Your task to perform on an android device: open app "Flipkart Online Shopping App" (install if not already installed) Image 0: 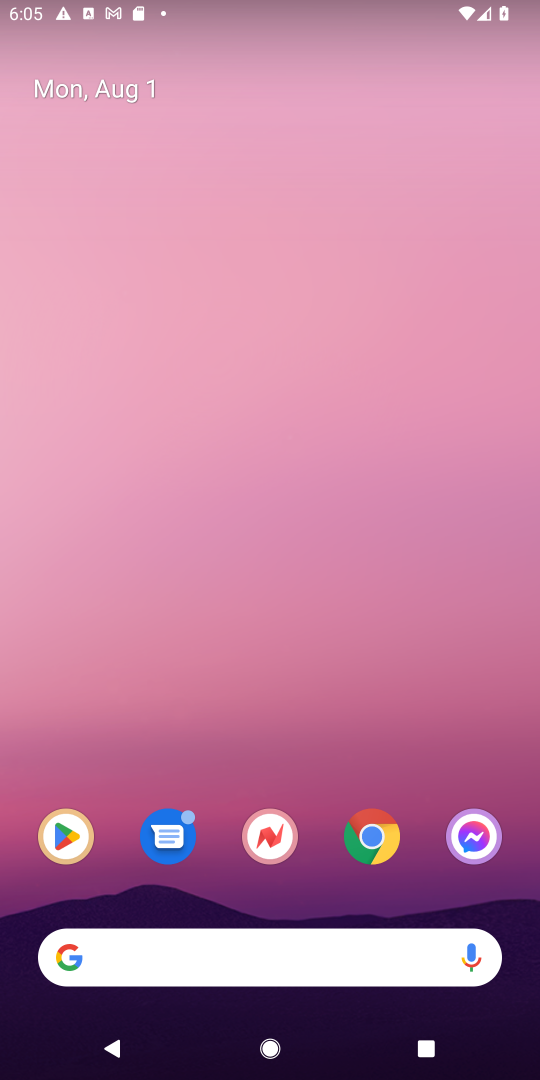
Step 0: press home button
Your task to perform on an android device: open app "Flipkart Online Shopping App" (install if not already installed) Image 1: 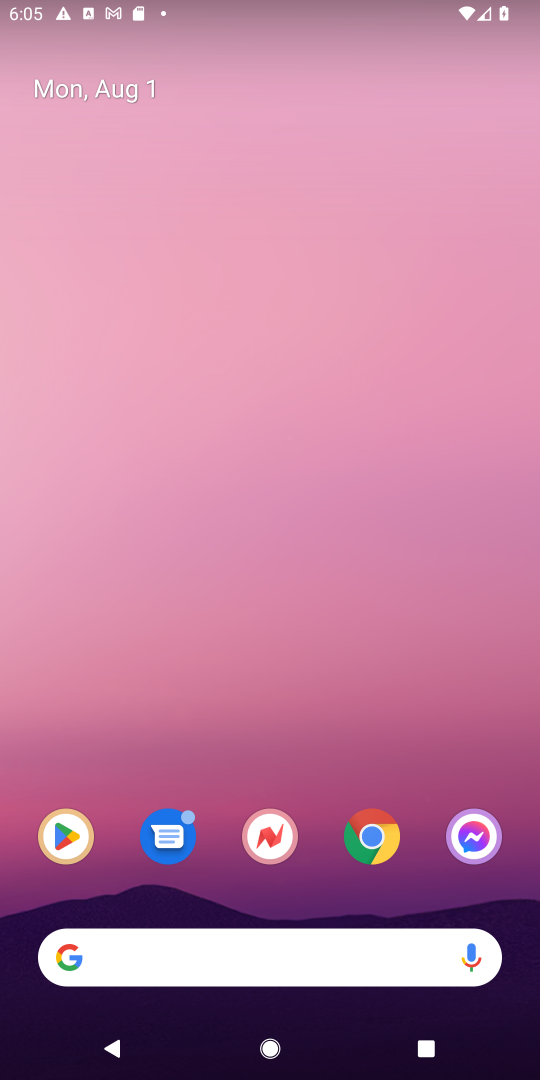
Step 1: click (52, 834)
Your task to perform on an android device: open app "Flipkart Online Shopping App" (install if not already installed) Image 2: 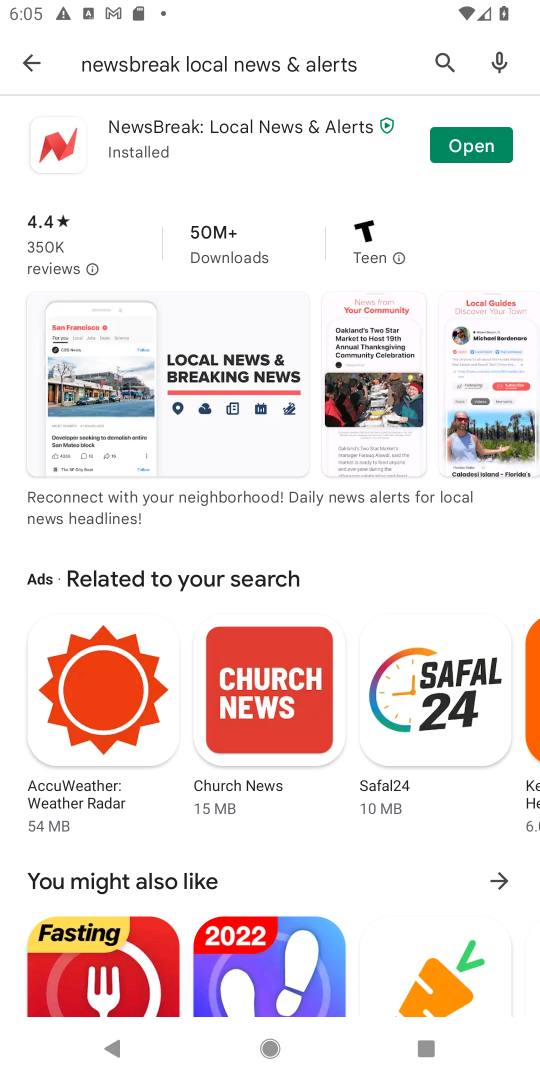
Step 2: click (438, 59)
Your task to perform on an android device: open app "Flipkart Online Shopping App" (install if not already installed) Image 3: 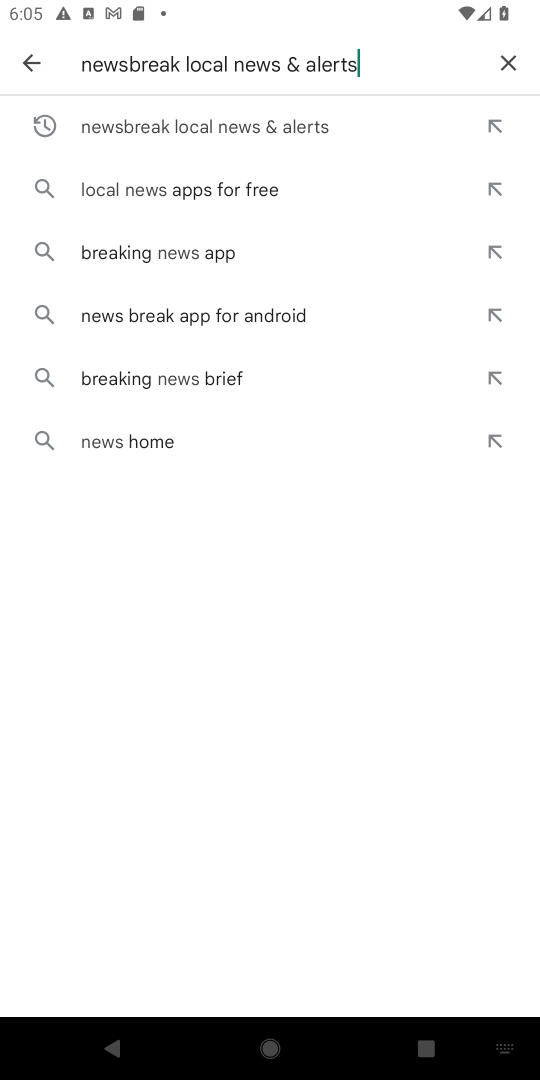
Step 3: click (507, 60)
Your task to perform on an android device: open app "Flipkart Online Shopping App" (install if not already installed) Image 4: 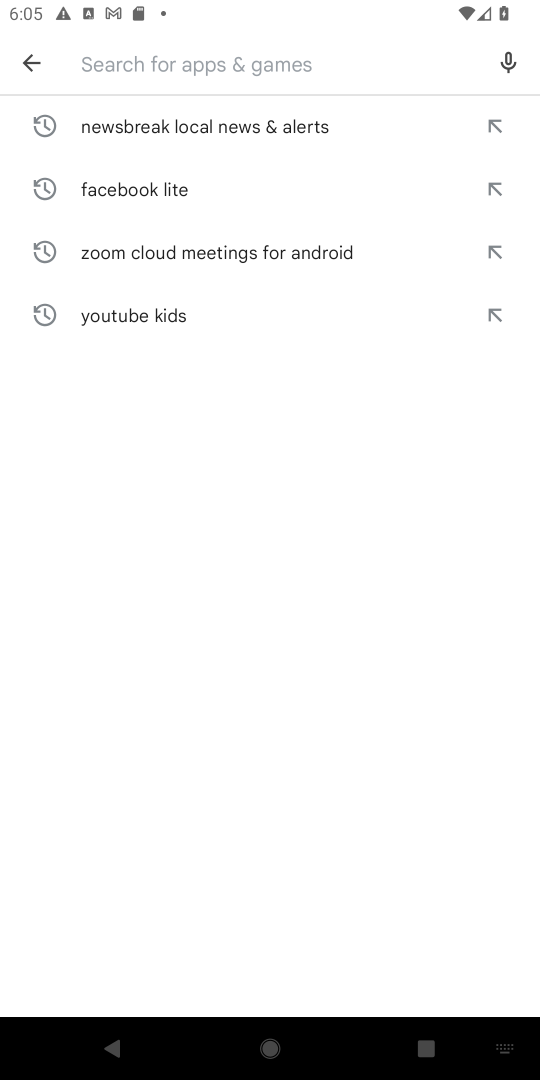
Step 4: type "Flipkart Online Shopping App"
Your task to perform on an android device: open app "Flipkart Online Shopping App" (install if not already installed) Image 5: 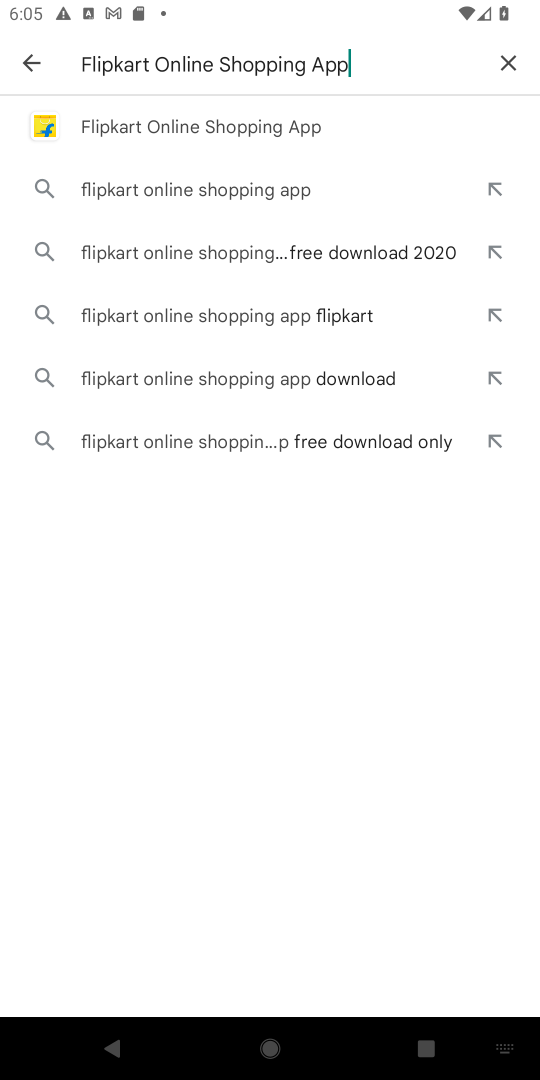
Step 5: click (225, 124)
Your task to perform on an android device: open app "Flipkart Online Shopping App" (install if not already installed) Image 6: 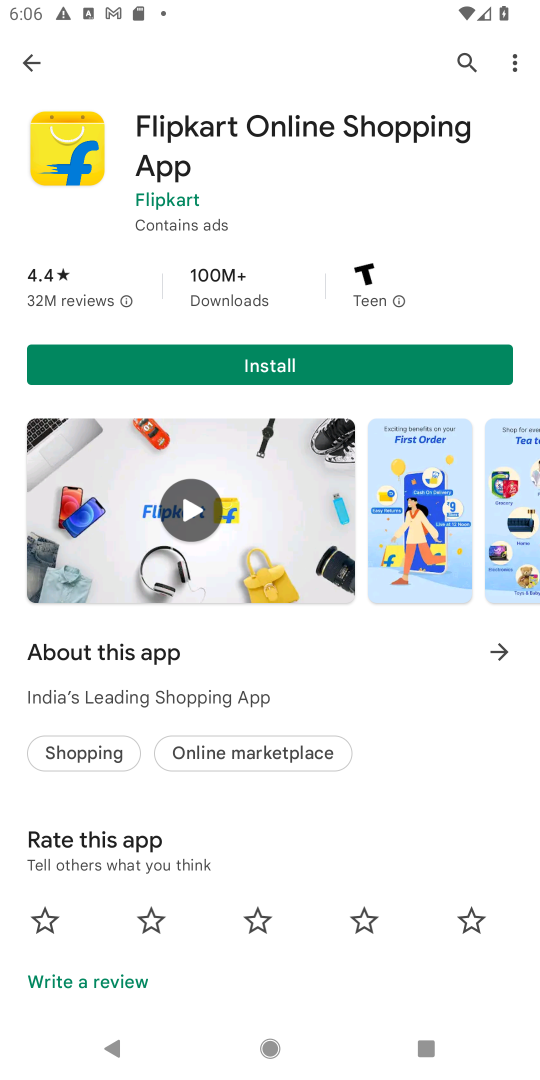
Step 6: click (258, 369)
Your task to perform on an android device: open app "Flipkart Online Shopping App" (install if not already installed) Image 7: 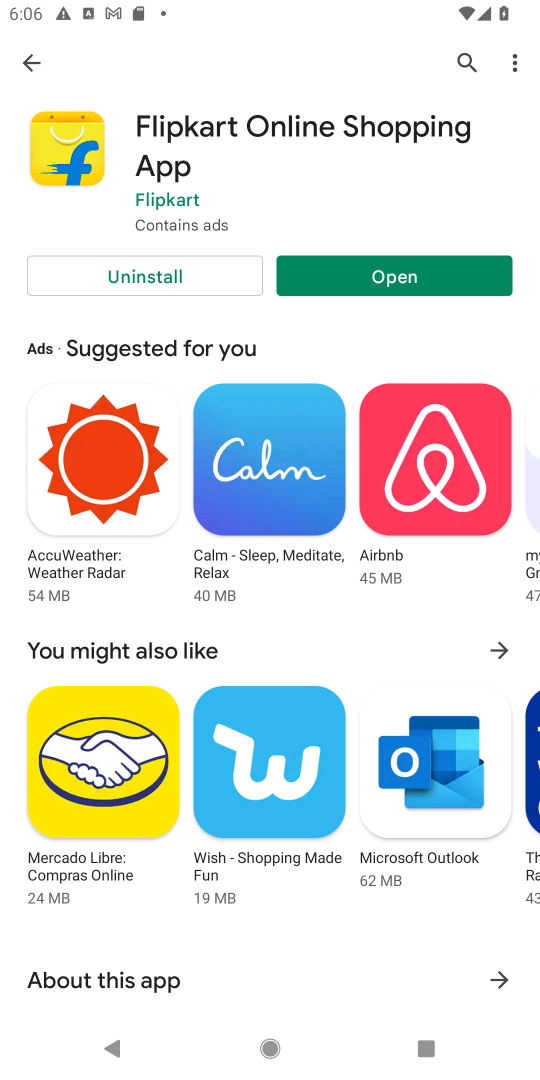
Step 7: click (466, 272)
Your task to perform on an android device: open app "Flipkart Online Shopping App" (install if not already installed) Image 8: 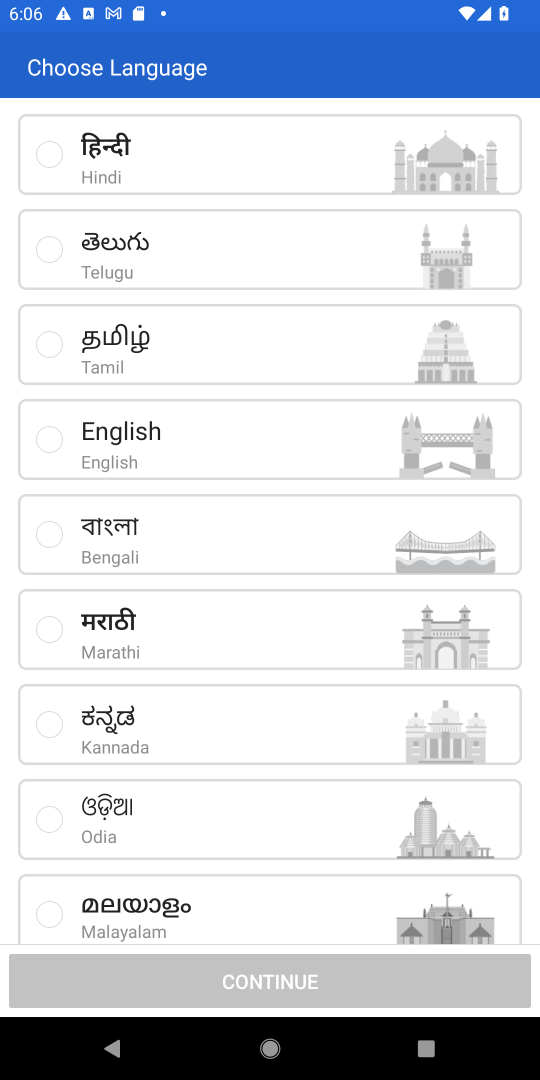
Step 8: task complete